Your task to perform on an android device: visit the assistant section in the google photos Image 0: 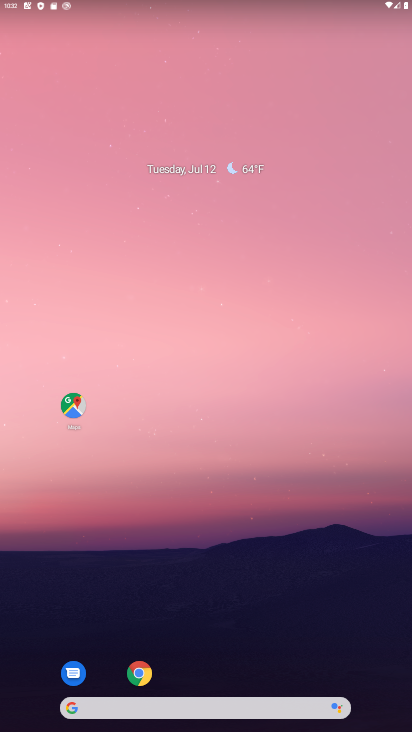
Step 0: drag from (291, 495) to (271, 133)
Your task to perform on an android device: visit the assistant section in the google photos Image 1: 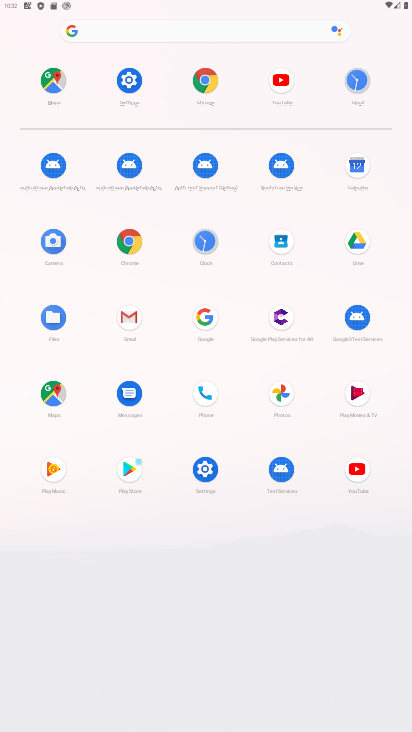
Step 1: click (281, 388)
Your task to perform on an android device: visit the assistant section in the google photos Image 2: 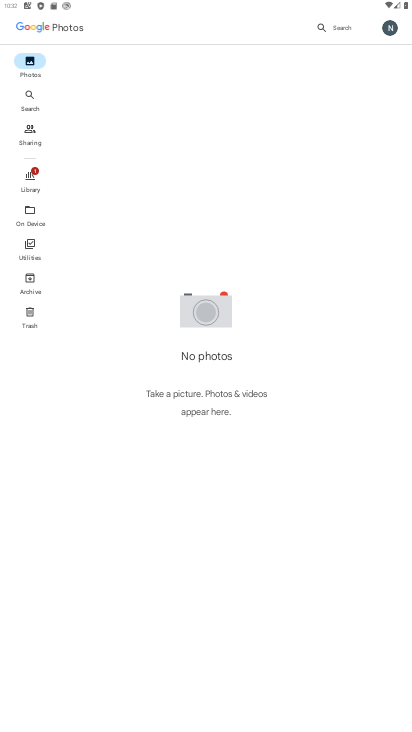
Step 2: click (34, 177)
Your task to perform on an android device: visit the assistant section in the google photos Image 3: 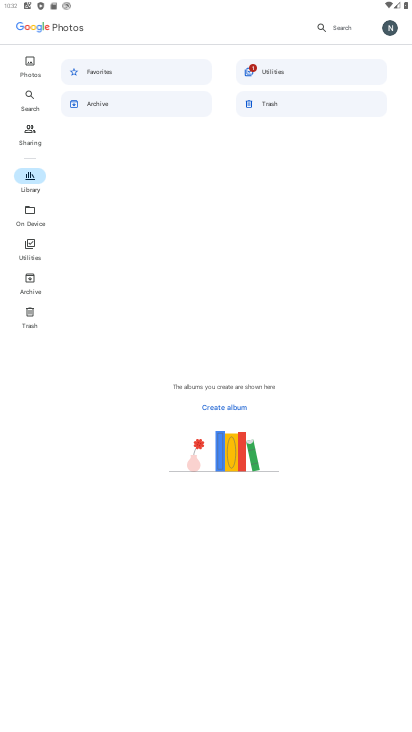
Step 3: click (23, 217)
Your task to perform on an android device: visit the assistant section in the google photos Image 4: 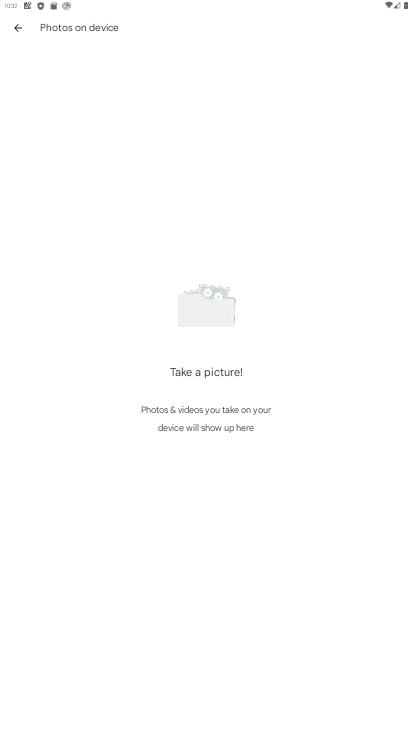
Step 4: click (16, 26)
Your task to perform on an android device: visit the assistant section in the google photos Image 5: 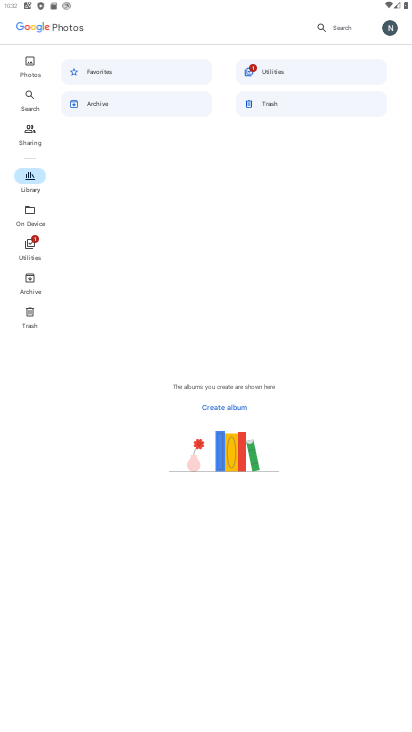
Step 5: click (25, 276)
Your task to perform on an android device: visit the assistant section in the google photos Image 6: 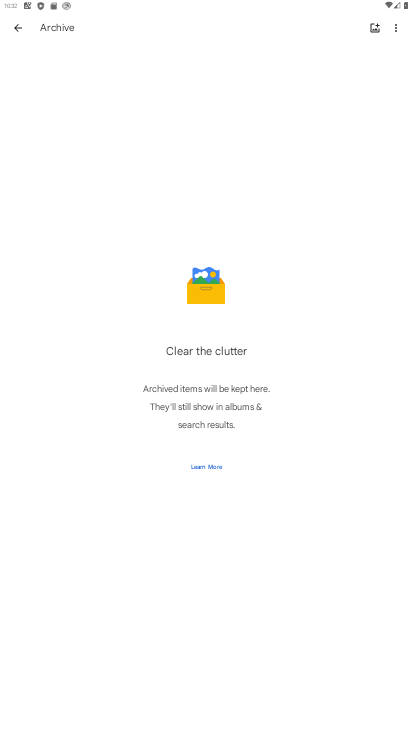
Step 6: click (14, 26)
Your task to perform on an android device: visit the assistant section in the google photos Image 7: 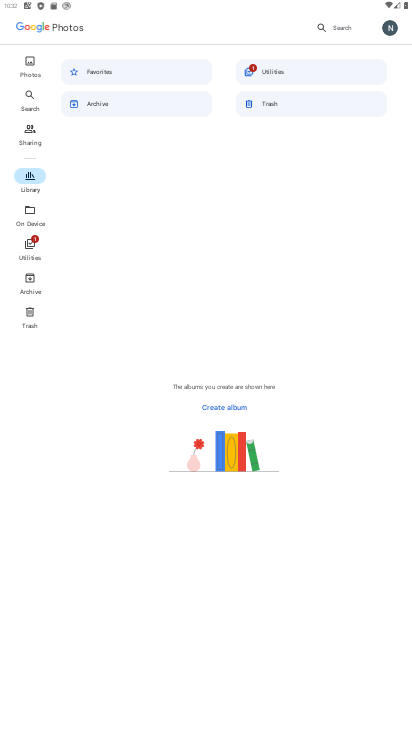
Step 7: click (37, 128)
Your task to perform on an android device: visit the assistant section in the google photos Image 8: 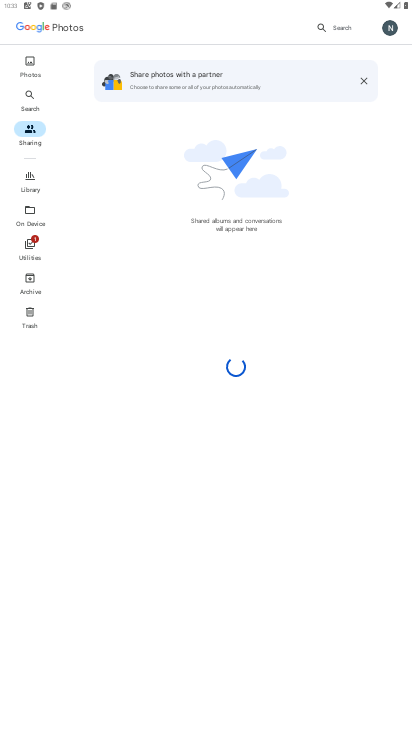
Step 8: task complete